Your task to perform on an android device: Open Google Chrome and open the bookmarks view Image 0: 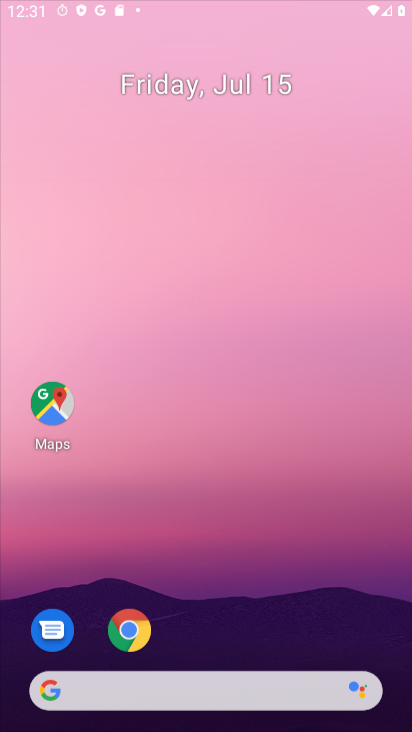
Step 0: click (152, 575)
Your task to perform on an android device: Open Google Chrome and open the bookmarks view Image 1: 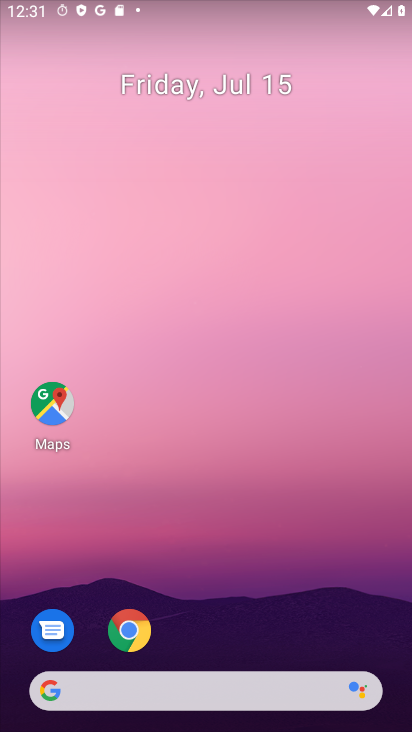
Step 1: press home button
Your task to perform on an android device: Open Google Chrome and open the bookmarks view Image 2: 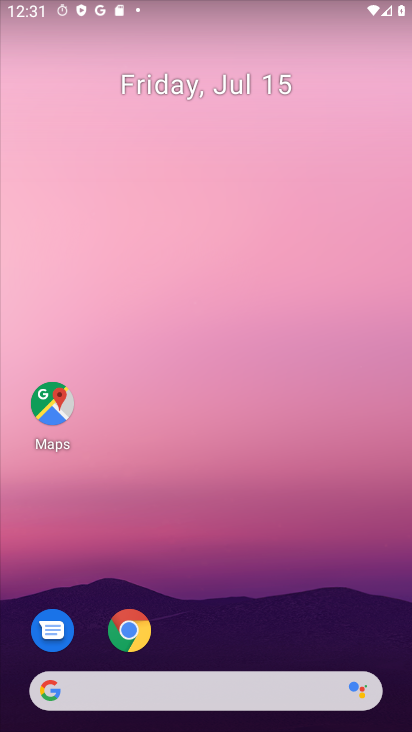
Step 2: click (125, 634)
Your task to perform on an android device: Open Google Chrome and open the bookmarks view Image 3: 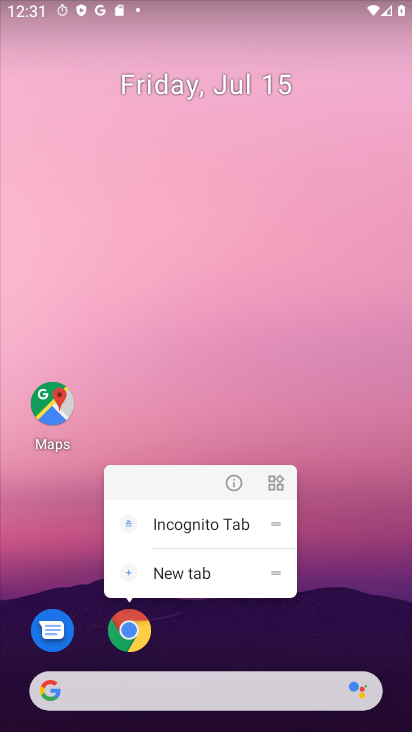
Step 3: click (237, 475)
Your task to perform on an android device: Open Google Chrome and open the bookmarks view Image 4: 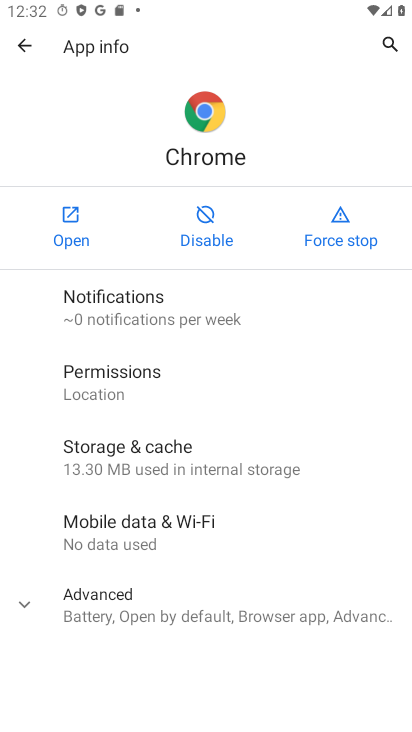
Step 4: click (71, 251)
Your task to perform on an android device: Open Google Chrome and open the bookmarks view Image 5: 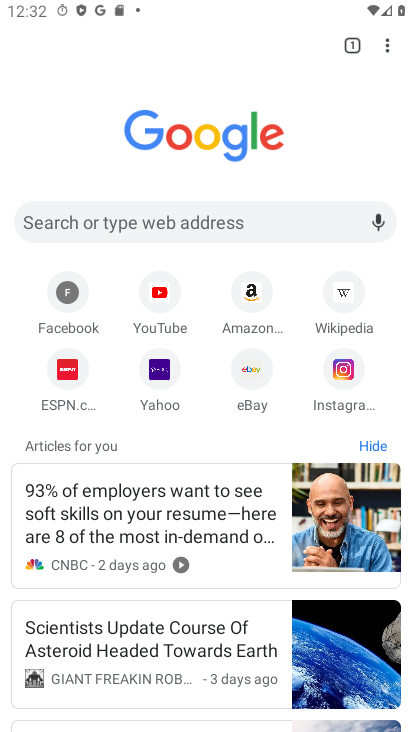
Step 5: click (379, 37)
Your task to perform on an android device: Open Google Chrome and open the bookmarks view Image 6: 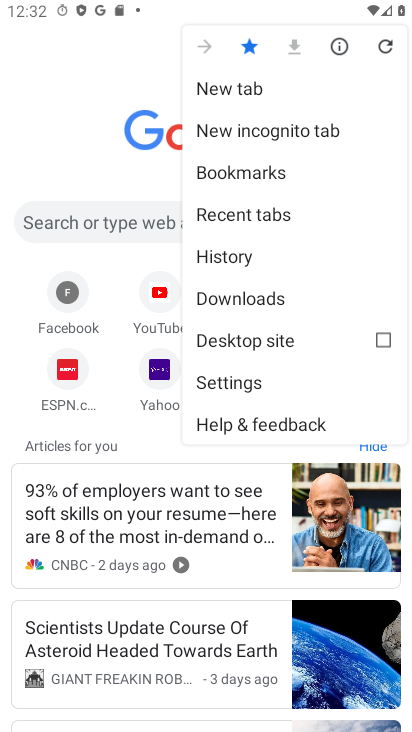
Step 6: drag from (265, 374) to (319, 110)
Your task to perform on an android device: Open Google Chrome and open the bookmarks view Image 7: 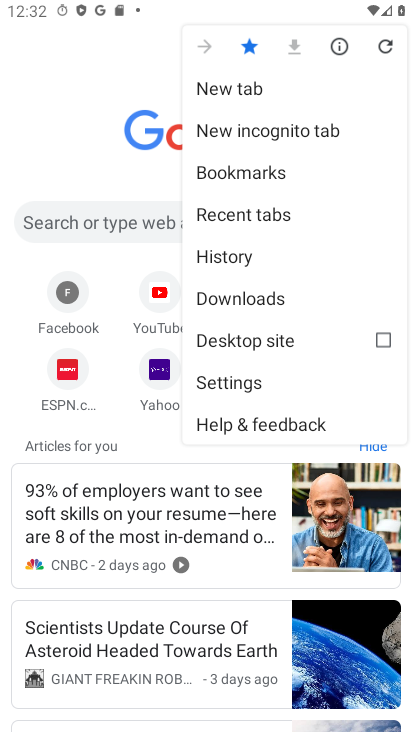
Step 7: click (259, 178)
Your task to perform on an android device: Open Google Chrome and open the bookmarks view Image 8: 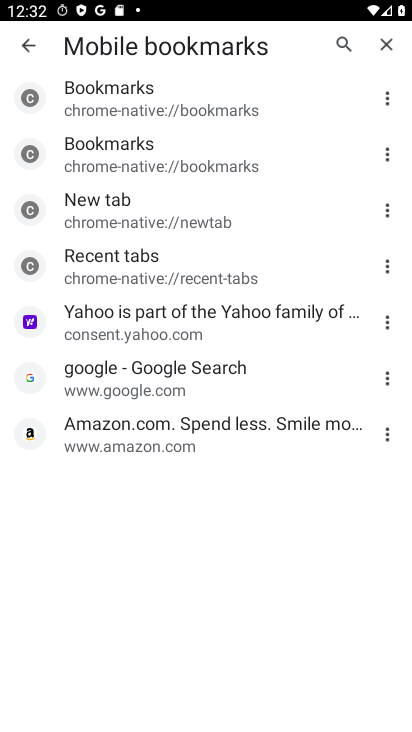
Step 8: task complete